Your task to perform on an android device: toggle sleep mode Image 0: 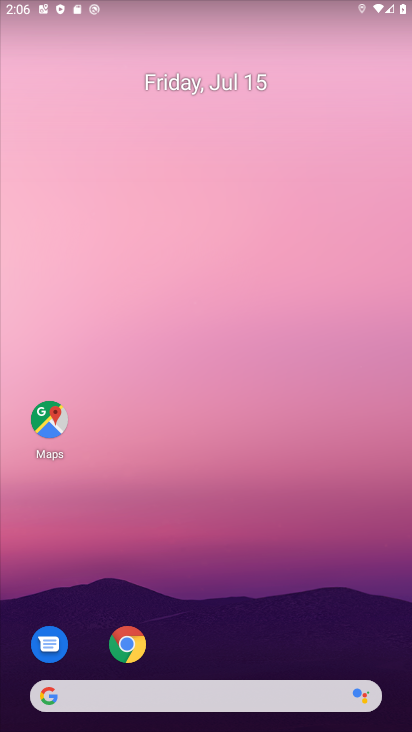
Step 0: drag from (384, 647) to (318, 54)
Your task to perform on an android device: toggle sleep mode Image 1: 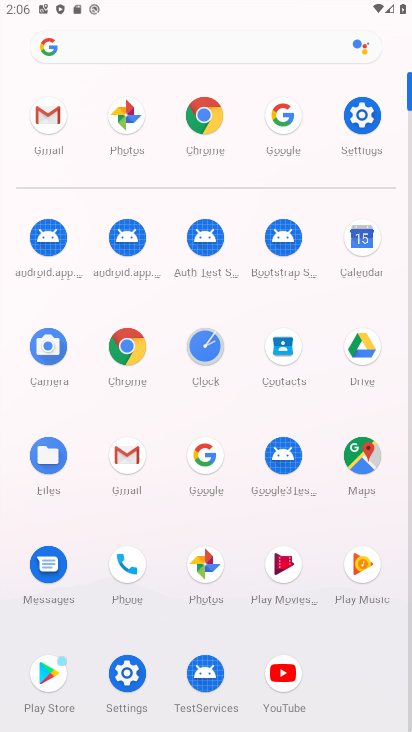
Step 1: click (128, 675)
Your task to perform on an android device: toggle sleep mode Image 2: 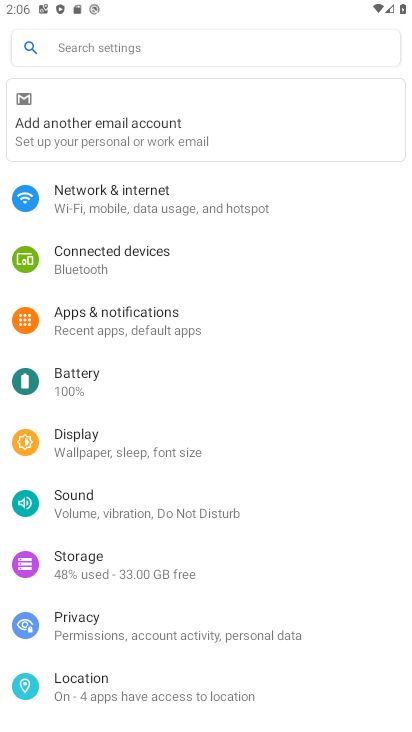
Step 2: task complete